Your task to perform on an android device: open app "Instagram" Image 0: 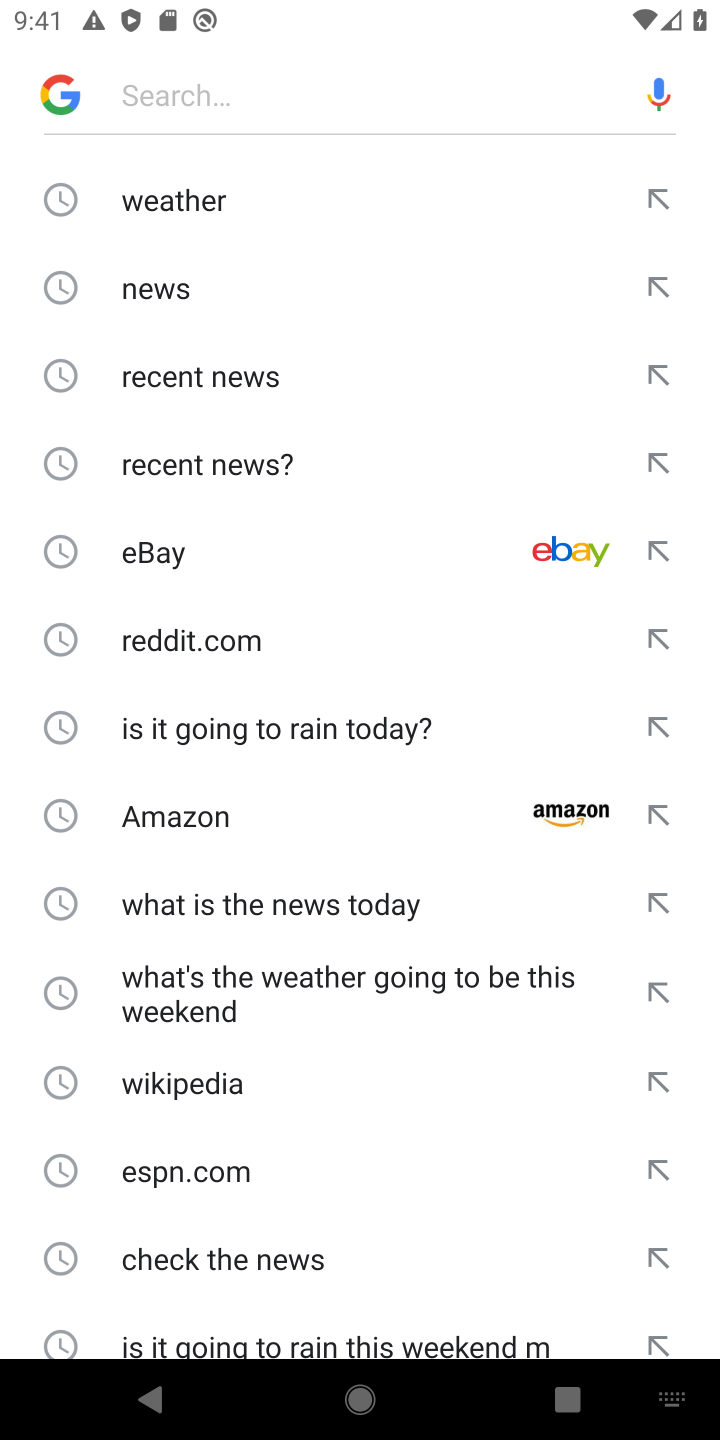
Step 0: press back button
Your task to perform on an android device: open app "Instagram" Image 1: 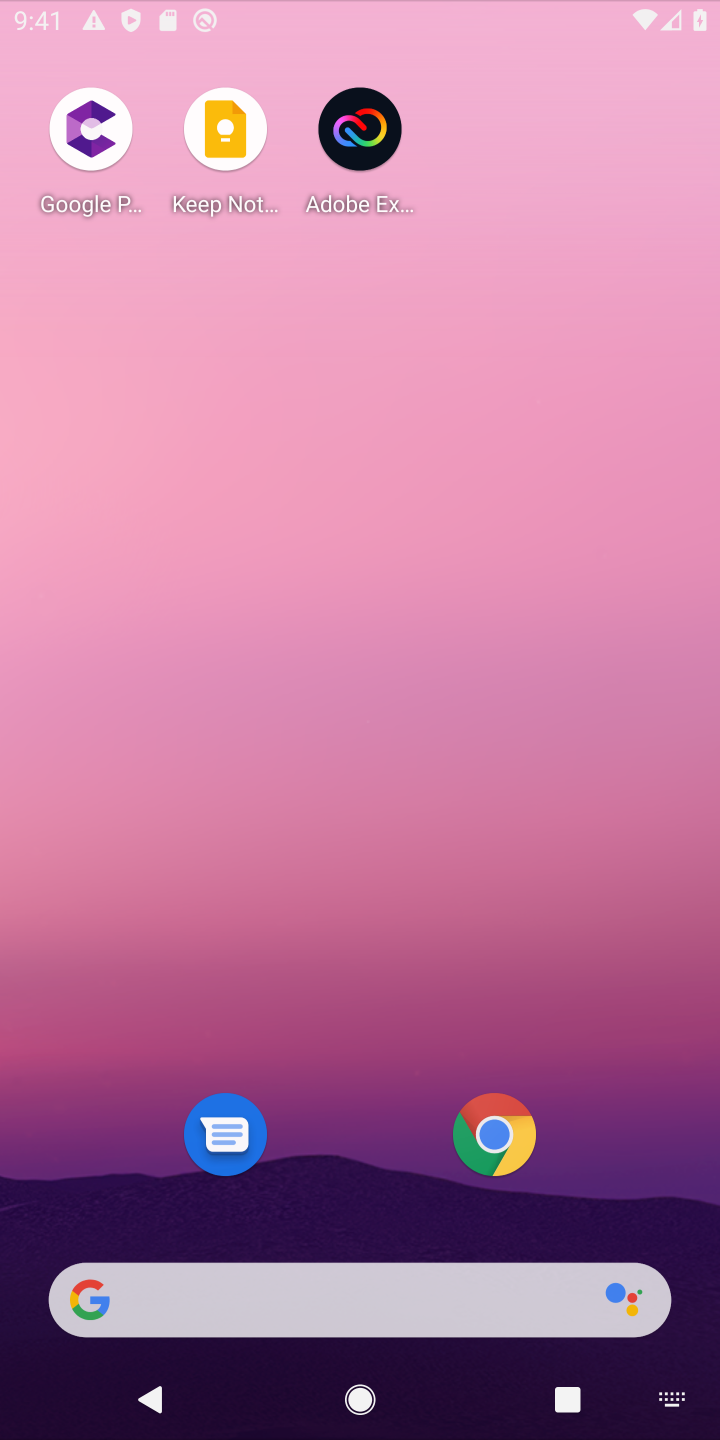
Step 1: press back button
Your task to perform on an android device: open app "Instagram" Image 2: 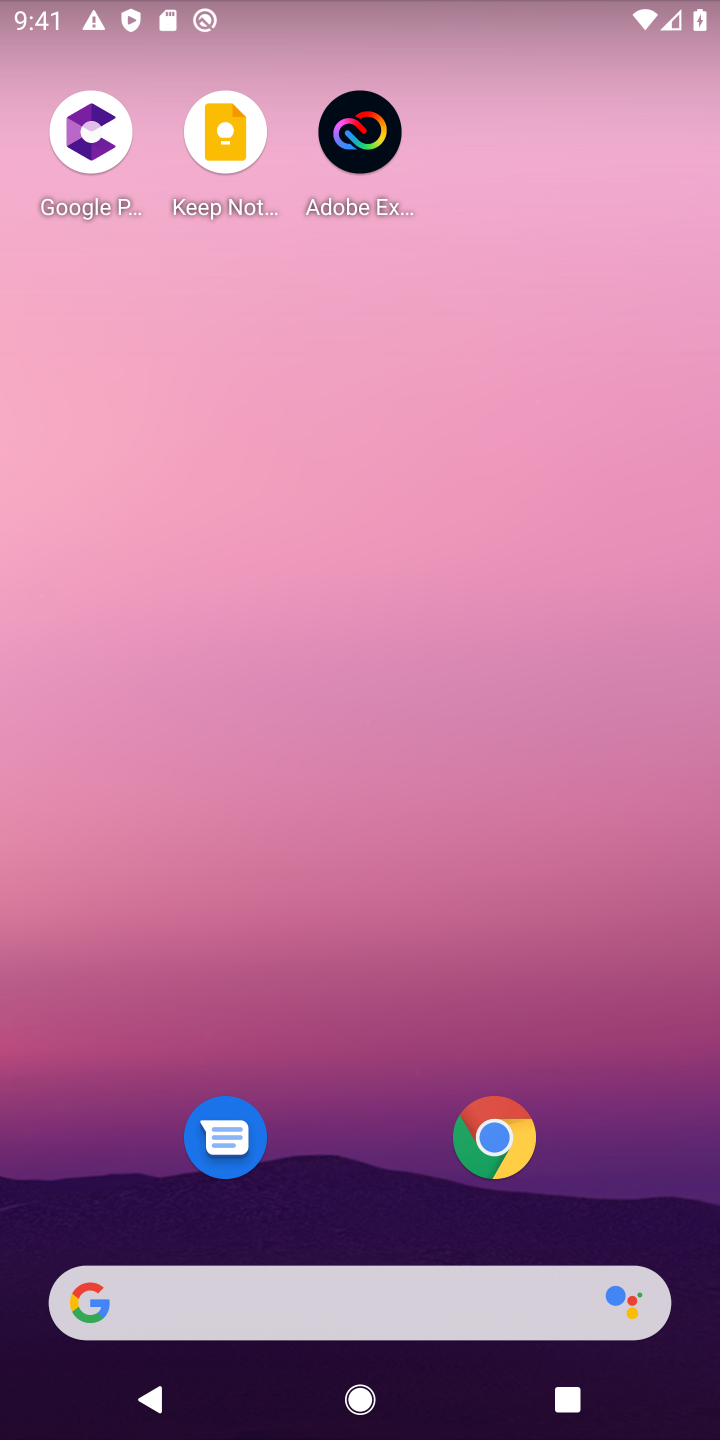
Step 2: drag from (280, 711) to (216, 77)
Your task to perform on an android device: open app "Instagram" Image 3: 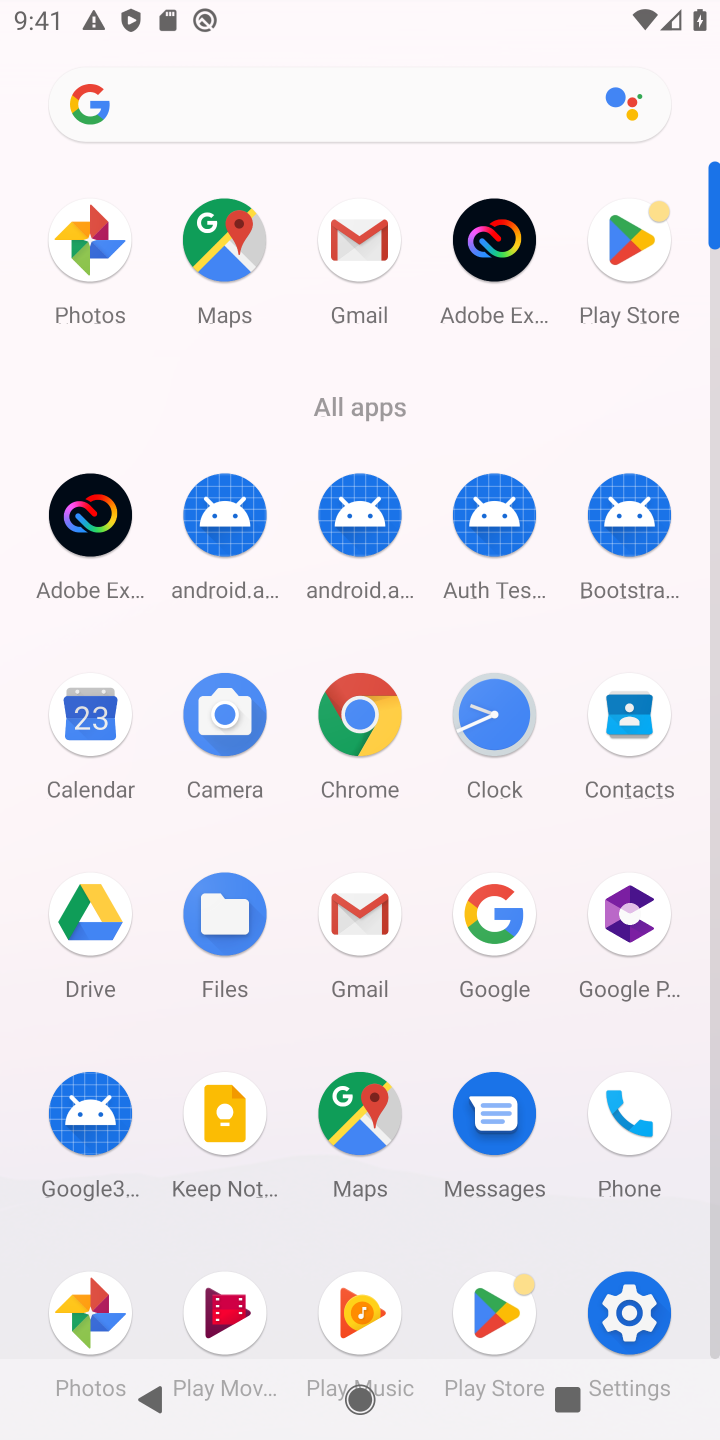
Step 3: click (613, 284)
Your task to perform on an android device: open app "Instagram" Image 4: 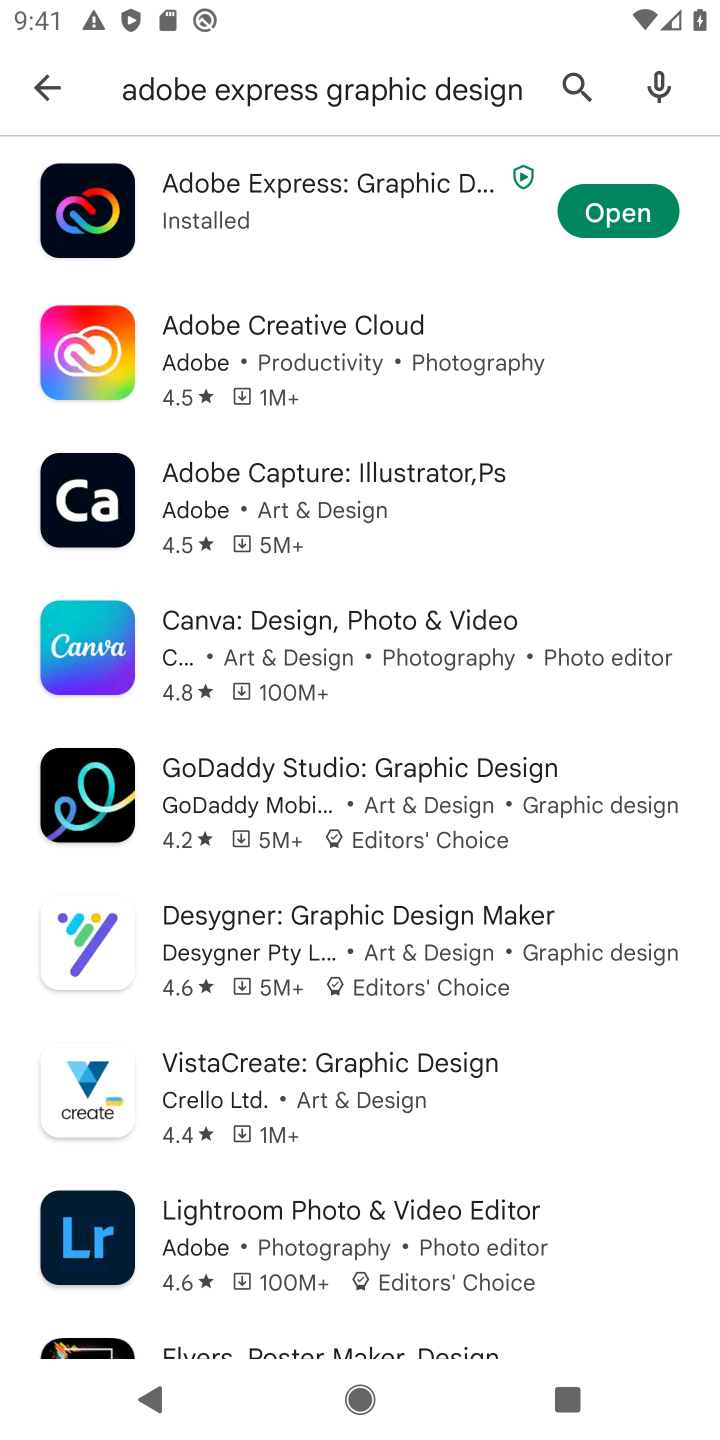
Step 4: click (46, 73)
Your task to perform on an android device: open app "Instagram" Image 5: 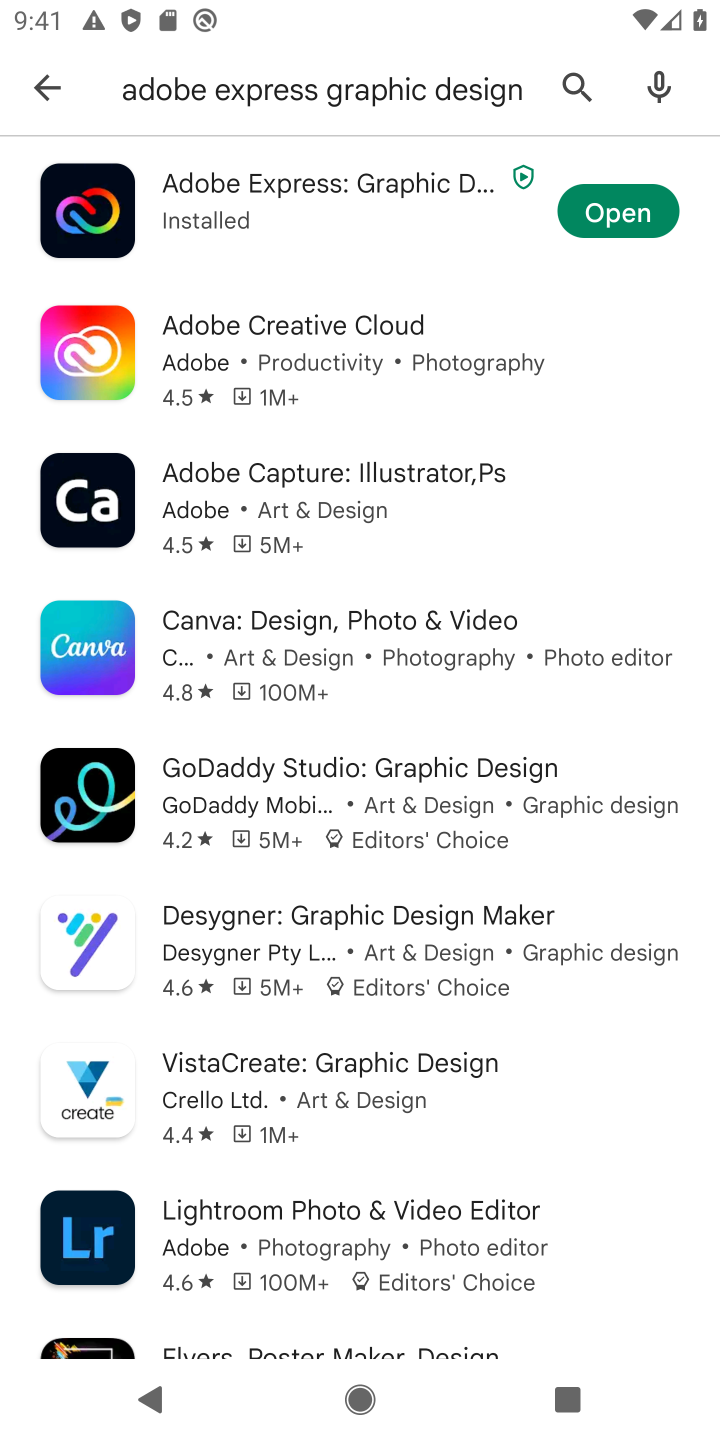
Step 5: click (46, 73)
Your task to perform on an android device: open app "Instagram" Image 6: 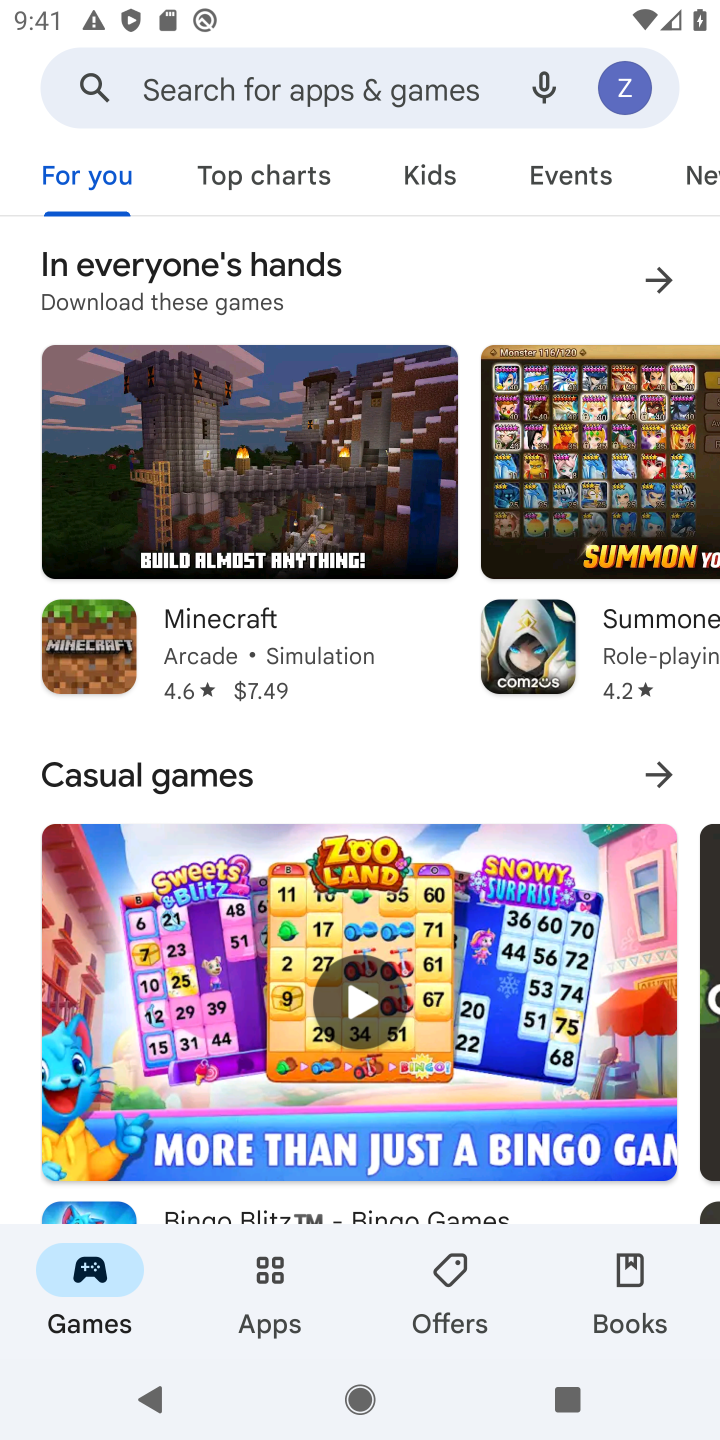
Step 6: click (473, 112)
Your task to perform on an android device: open app "Instagram" Image 7: 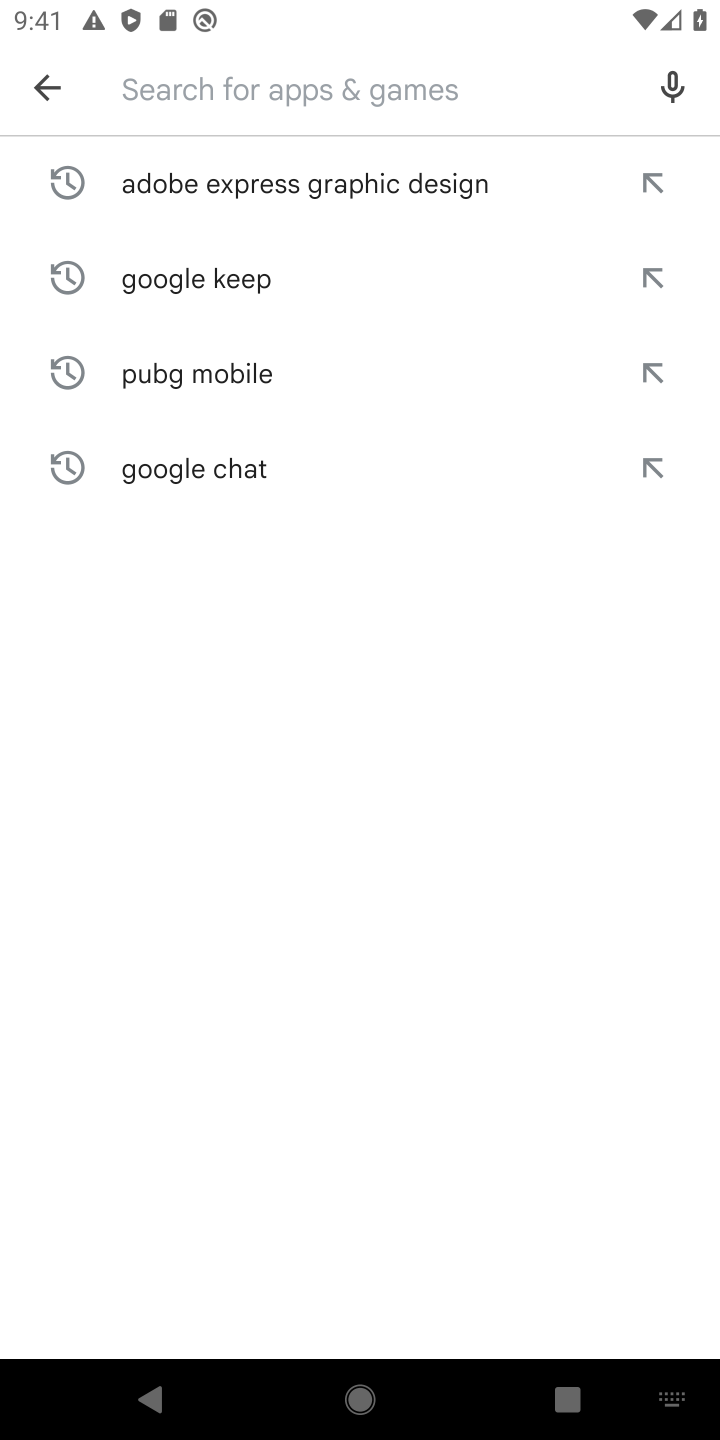
Step 7: type "Instagram"
Your task to perform on an android device: open app "Instagram" Image 8: 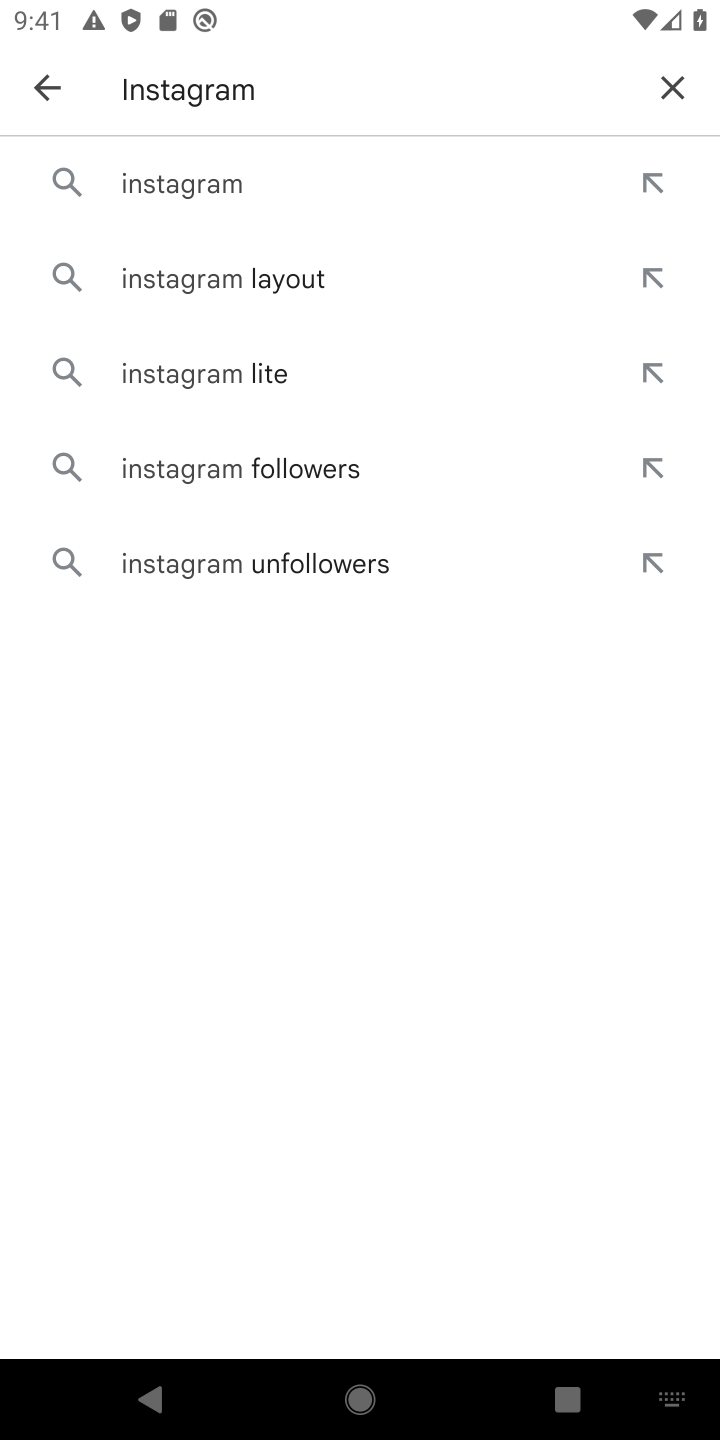
Step 8: click (206, 179)
Your task to perform on an android device: open app "Instagram" Image 9: 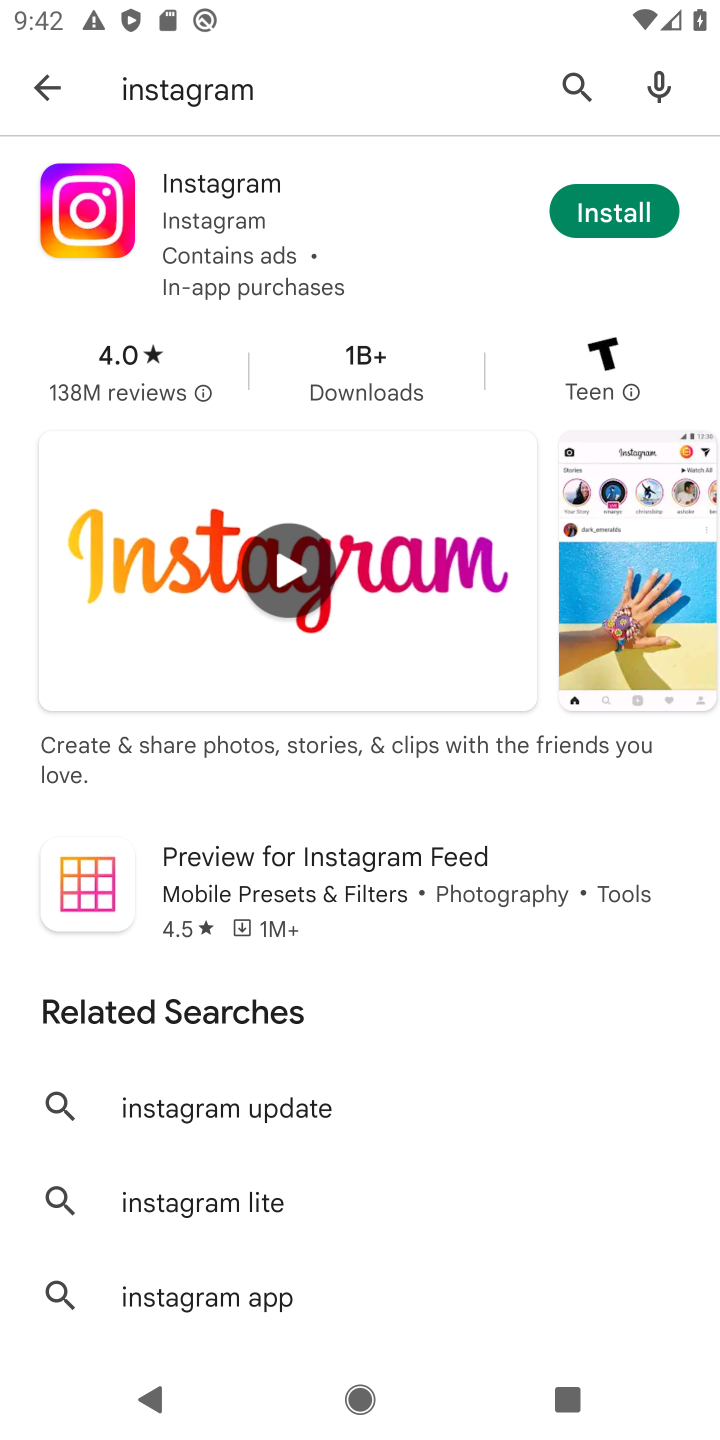
Step 9: task complete